Your task to perform on an android device: Open accessibility settings Image 0: 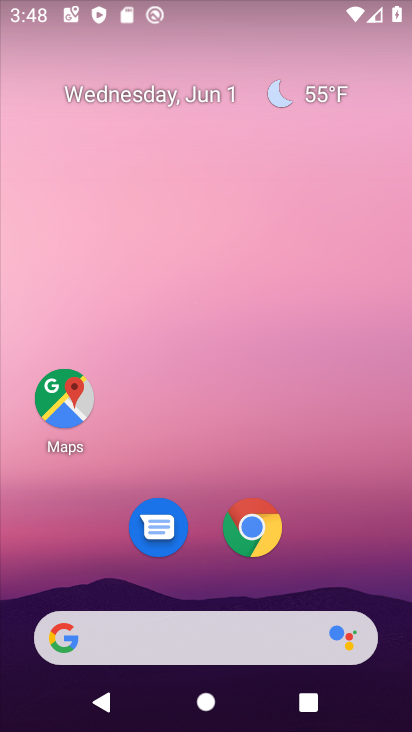
Step 0: press home button
Your task to perform on an android device: Open accessibility settings Image 1: 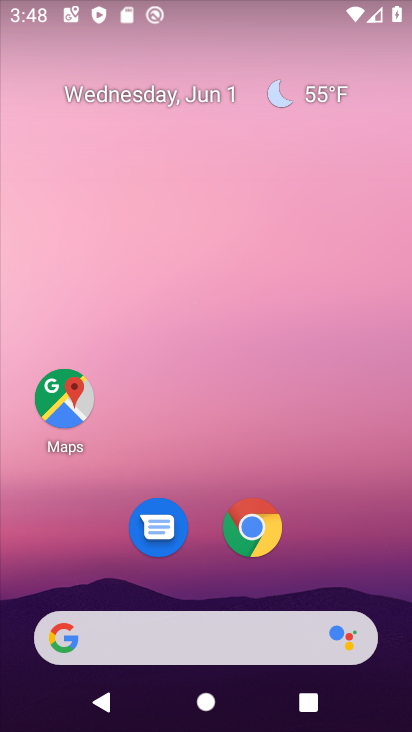
Step 1: drag from (343, 553) to (266, 10)
Your task to perform on an android device: Open accessibility settings Image 2: 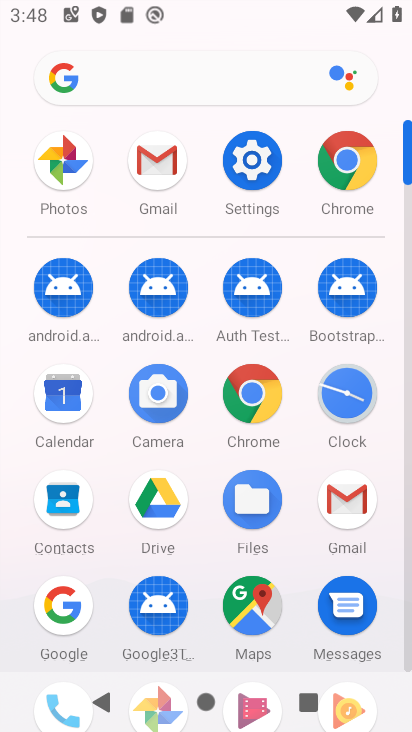
Step 2: click (267, 139)
Your task to perform on an android device: Open accessibility settings Image 3: 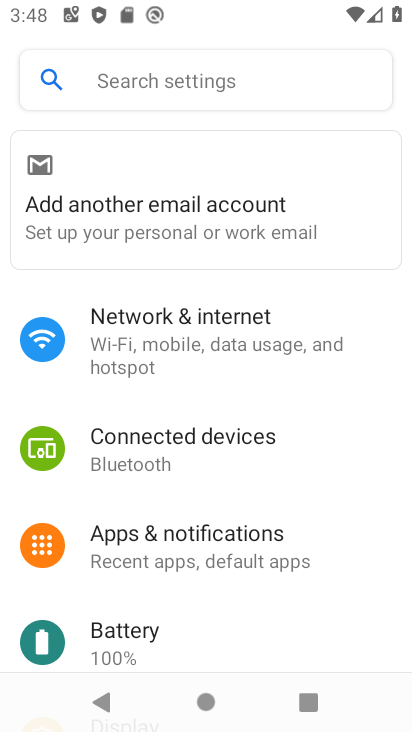
Step 3: drag from (267, 616) to (222, 97)
Your task to perform on an android device: Open accessibility settings Image 4: 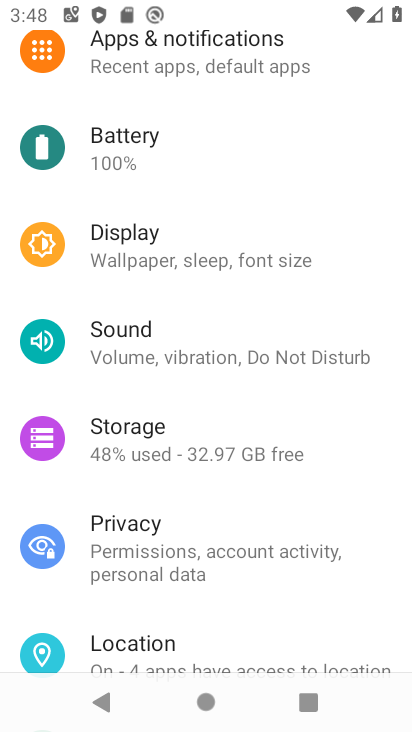
Step 4: drag from (306, 598) to (193, 107)
Your task to perform on an android device: Open accessibility settings Image 5: 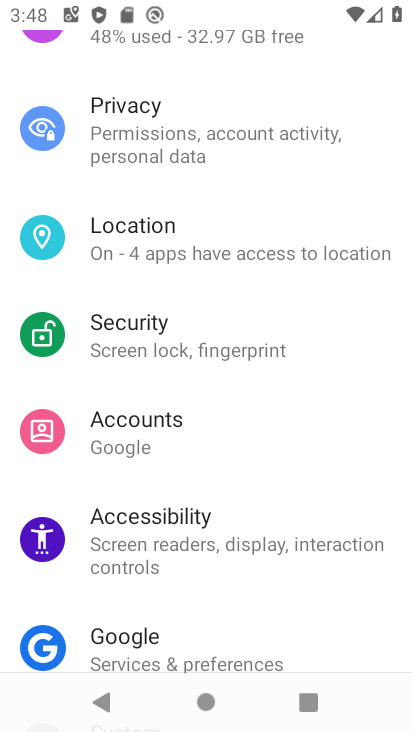
Step 5: click (203, 525)
Your task to perform on an android device: Open accessibility settings Image 6: 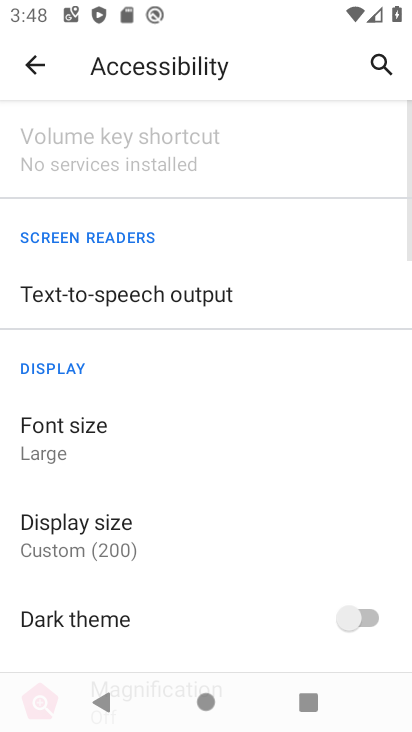
Step 6: task complete